Your task to perform on an android device: change notification settings in the gmail app Image 0: 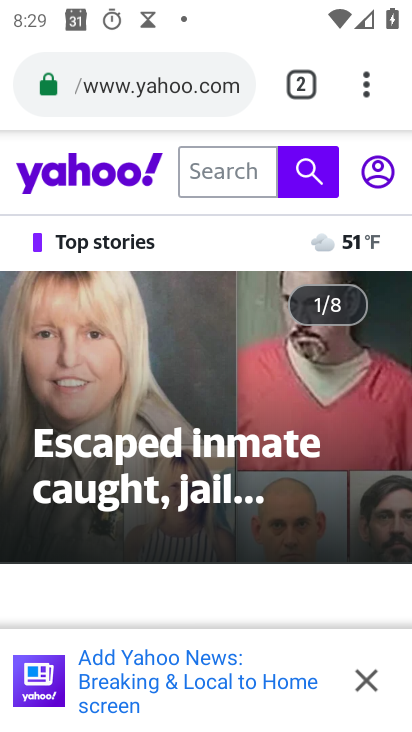
Step 0: press home button
Your task to perform on an android device: change notification settings in the gmail app Image 1: 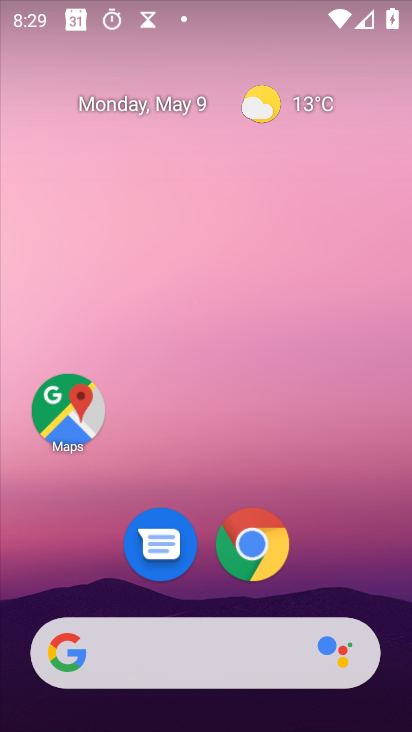
Step 1: drag from (367, 574) to (288, 102)
Your task to perform on an android device: change notification settings in the gmail app Image 2: 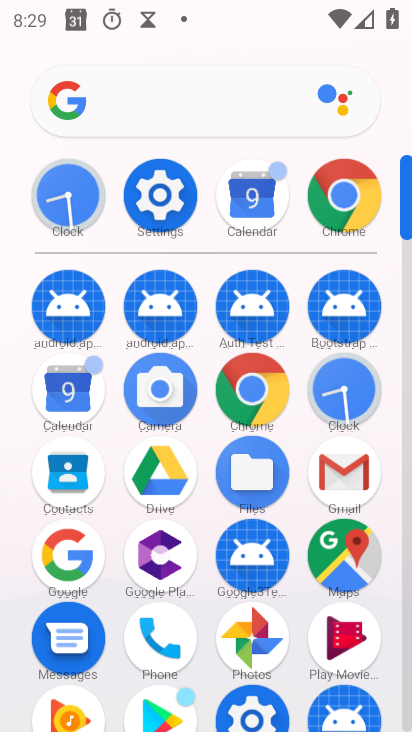
Step 2: click (352, 466)
Your task to perform on an android device: change notification settings in the gmail app Image 3: 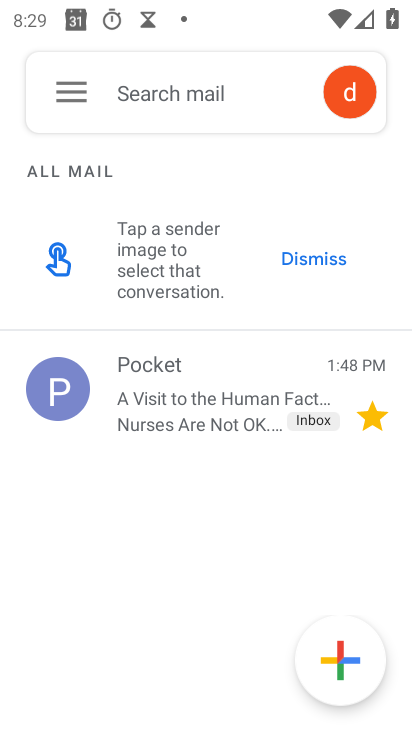
Step 3: click (64, 92)
Your task to perform on an android device: change notification settings in the gmail app Image 4: 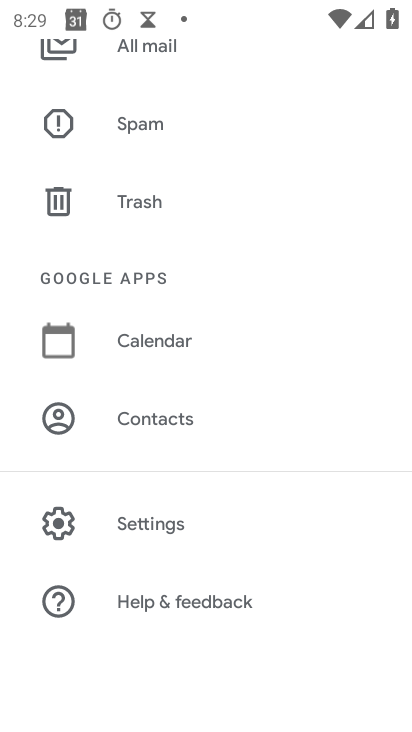
Step 4: click (111, 542)
Your task to perform on an android device: change notification settings in the gmail app Image 5: 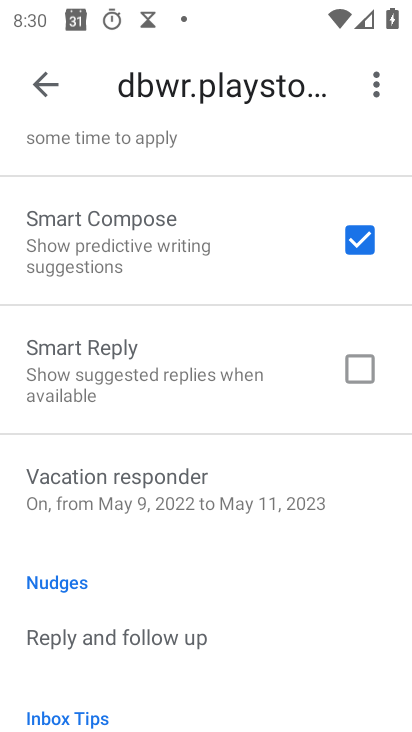
Step 5: drag from (117, 249) to (87, 687)
Your task to perform on an android device: change notification settings in the gmail app Image 6: 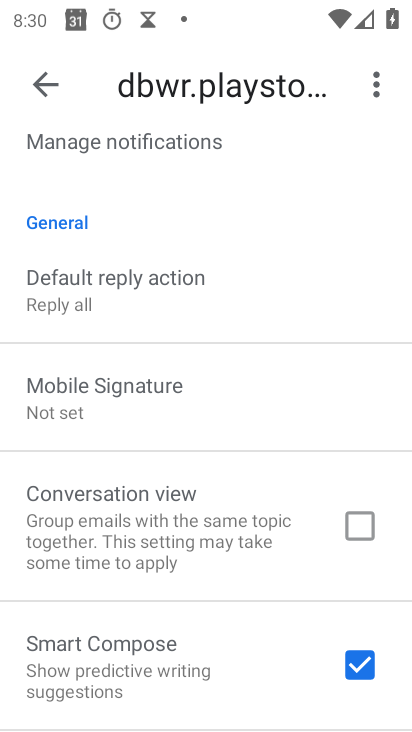
Step 6: drag from (184, 202) to (180, 653)
Your task to perform on an android device: change notification settings in the gmail app Image 7: 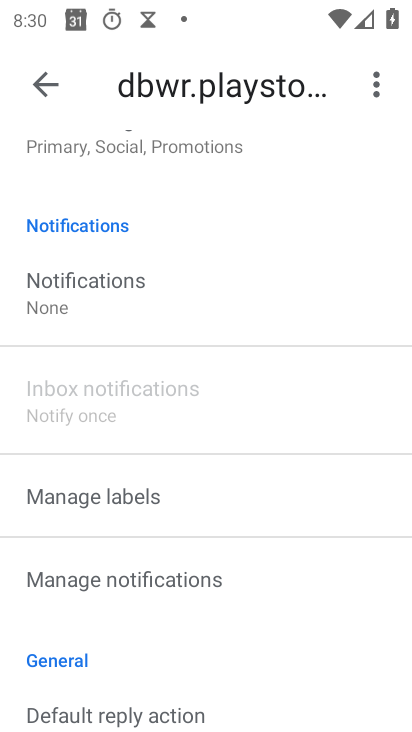
Step 7: click (57, 296)
Your task to perform on an android device: change notification settings in the gmail app Image 8: 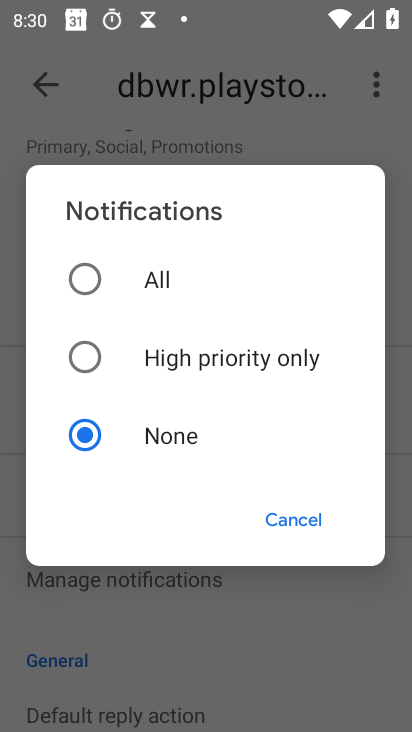
Step 8: click (94, 272)
Your task to perform on an android device: change notification settings in the gmail app Image 9: 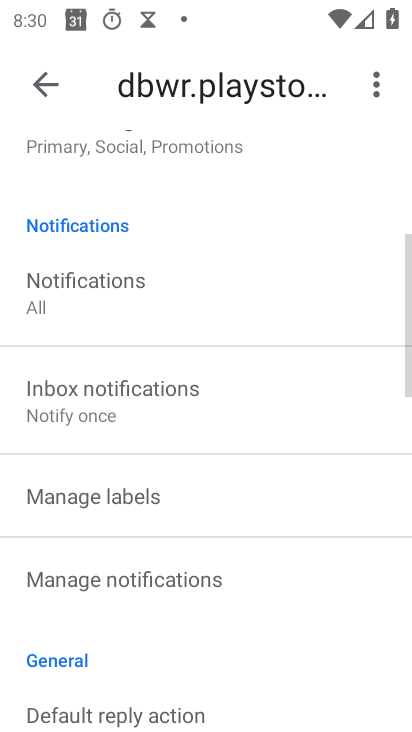
Step 9: task complete